Your task to perform on an android device: visit the assistant section in the google photos Image 0: 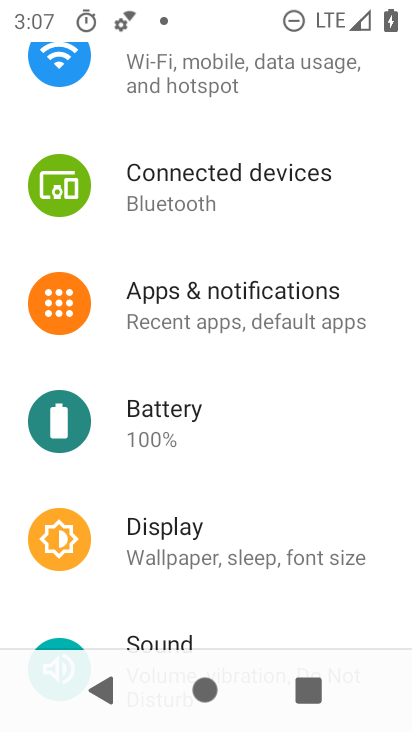
Step 0: press home button
Your task to perform on an android device: visit the assistant section in the google photos Image 1: 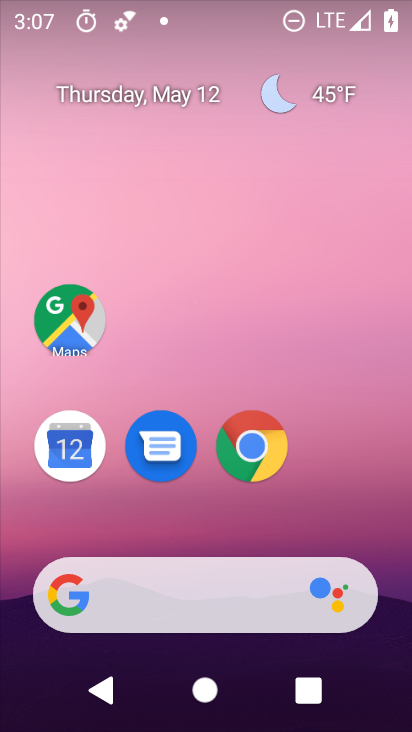
Step 1: drag from (200, 530) to (202, 181)
Your task to perform on an android device: visit the assistant section in the google photos Image 2: 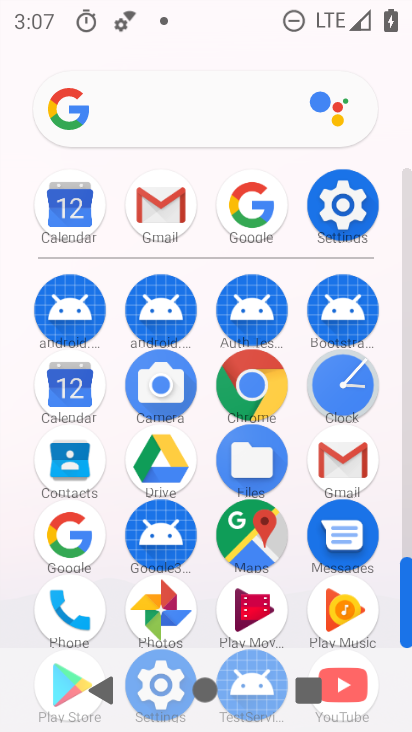
Step 2: click (159, 609)
Your task to perform on an android device: visit the assistant section in the google photos Image 3: 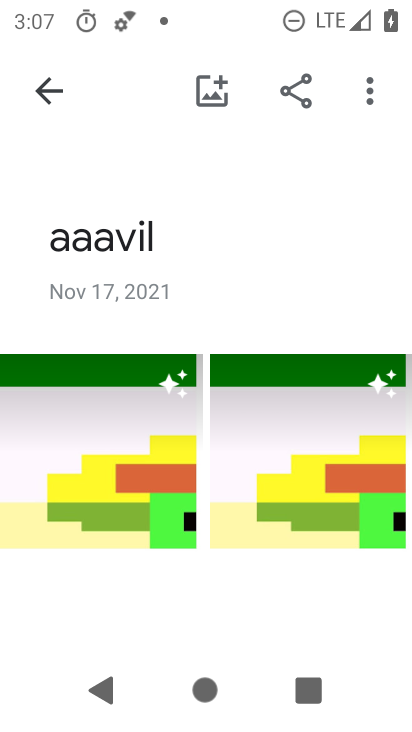
Step 3: click (40, 100)
Your task to perform on an android device: visit the assistant section in the google photos Image 4: 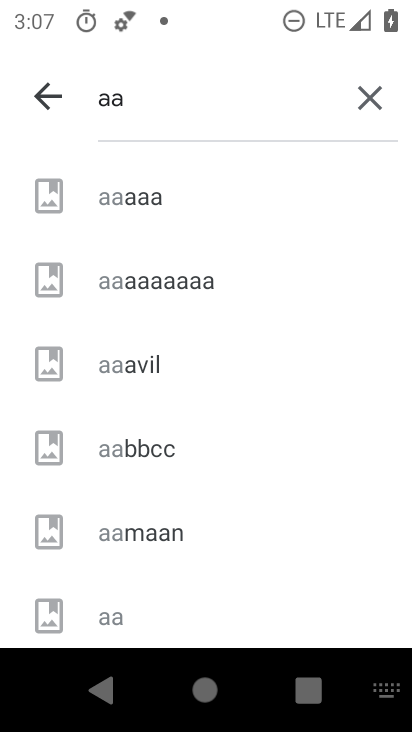
Step 4: click (62, 96)
Your task to perform on an android device: visit the assistant section in the google photos Image 5: 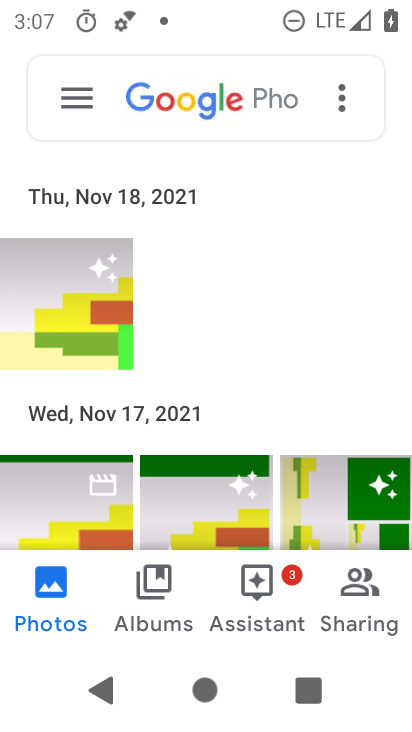
Step 5: click (254, 586)
Your task to perform on an android device: visit the assistant section in the google photos Image 6: 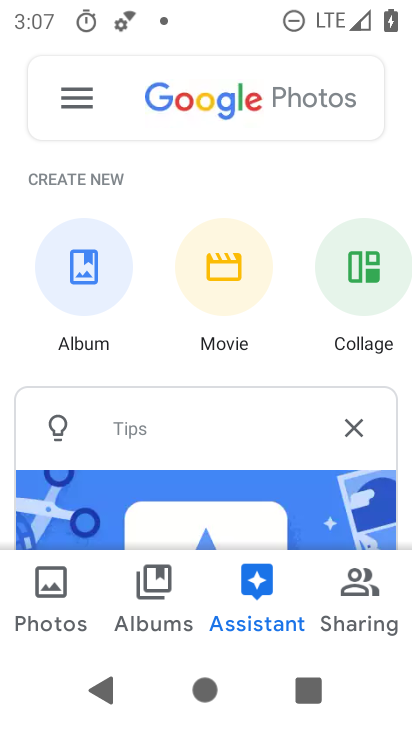
Step 6: task complete